Your task to perform on an android device: move an email to a new category in the gmail app Image 0: 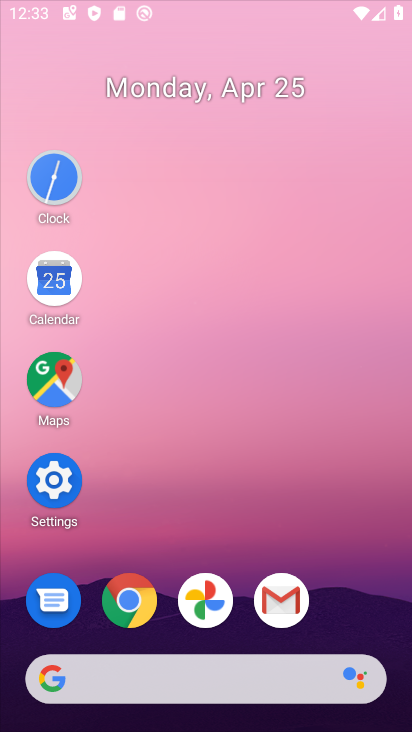
Step 0: click (50, 483)
Your task to perform on an android device: move an email to a new category in the gmail app Image 1: 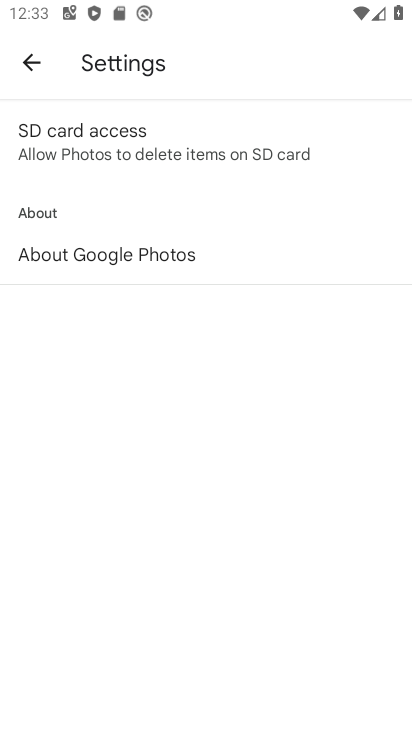
Step 1: press home button
Your task to perform on an android device: move an email to a new category in the gmail app Image 2: 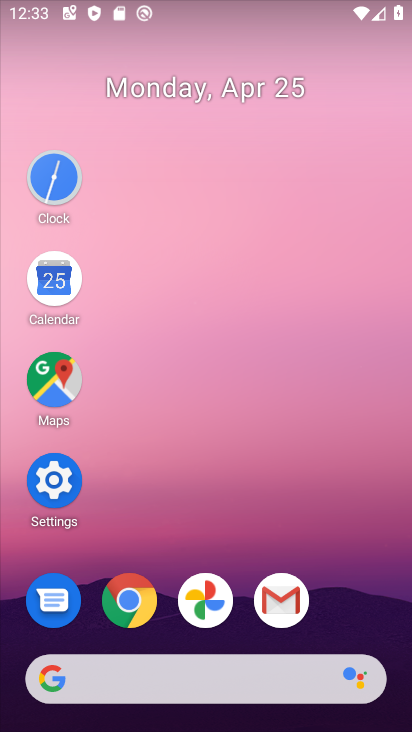
Step 2: click (275, 599)
Your task to perform on an android device: move an email to a new category in the gmail app Image 3: 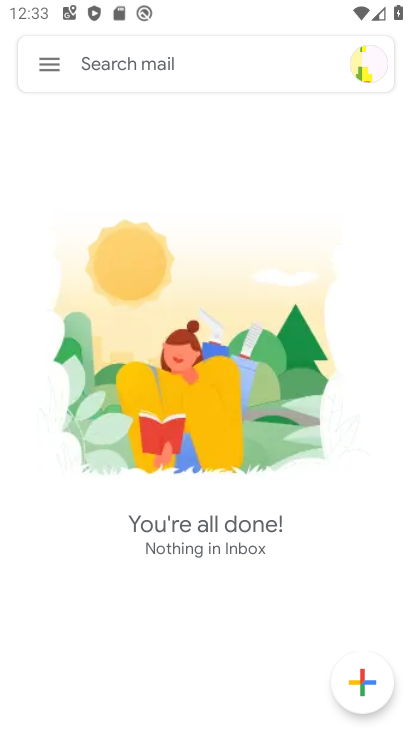
Step 3: click (54, 56)
Your task to perform on an android device: move an email to a new category in the gmail app Image 4: 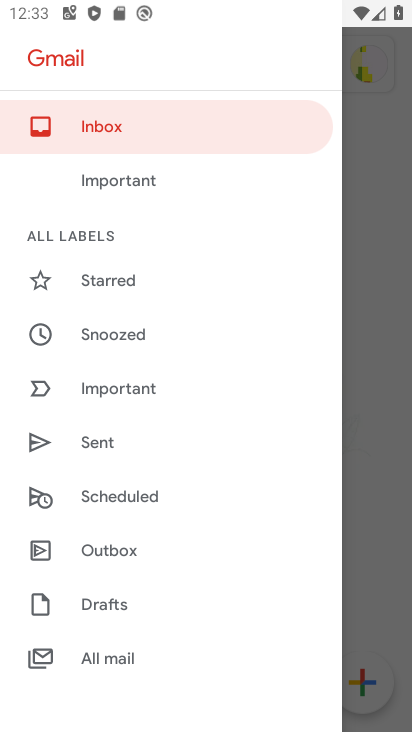
Step 4: click (112, 650)
Your task to perform on an android device: move an email to a new category in the gmail app Image 5: 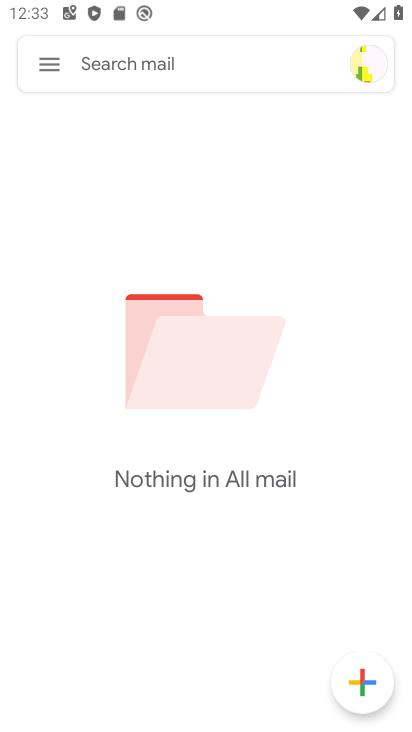
Step 5: task complete